Your task to perform on an android device: turn on javascript in the chrome app Image 0: 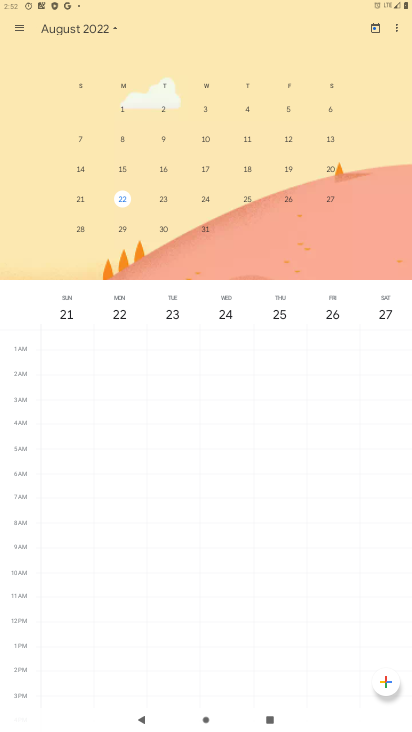
Step 0: press home button
Your task to perform on an android device: turn on javascript in the chrome app Image 1: 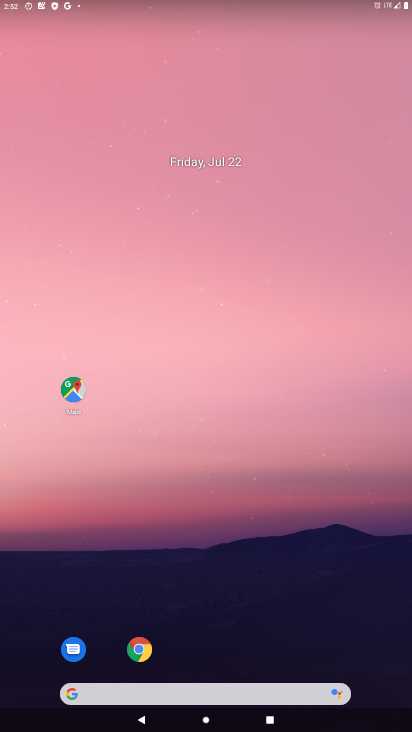
Step 1: drag from (341, 572) to (298, 77)
Your task to perform on an android device: turn on javascript in the chrome app Image 2: 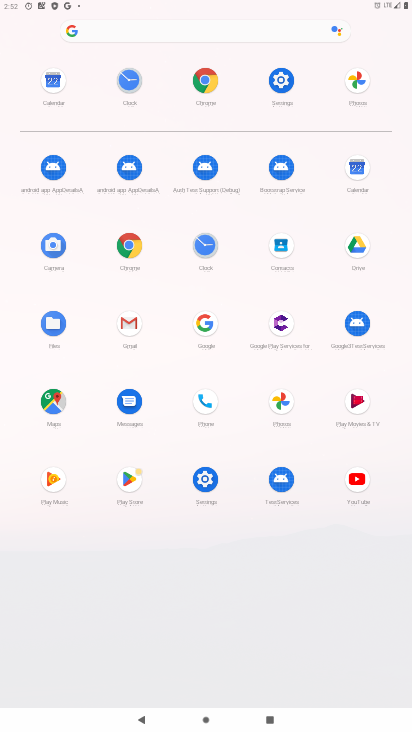
Step 2: click (134, 248)
Your task to perform on an android device: turn on javascript in the chrome app Image 3: 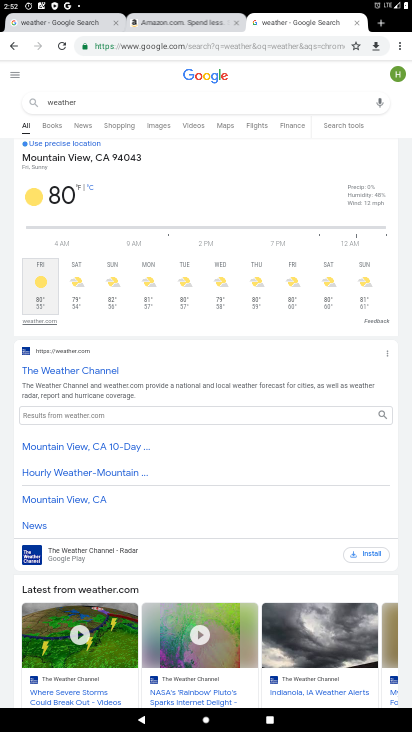
Step 3: drag from (397, 45) to (307, 316)
Your task to perform on an android device: turn on javascript in the chrome app Image 4: 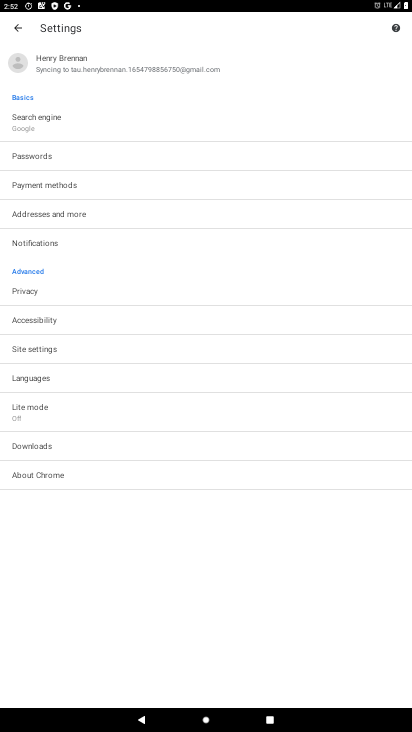
Step 4: click (58, 349)
Your task to perform on an android device: turn on javascript in the chrome app Image 5: 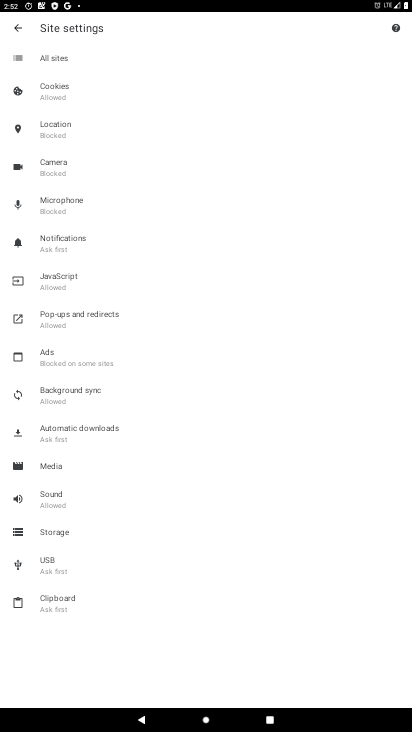
Step 5: click (63, 289)
Your task to perform on an android device: turn on javascript in the chrome app Image 6: 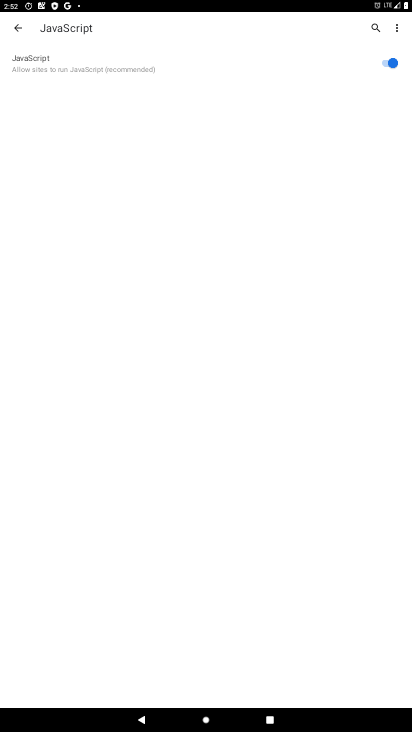
Step 6: task complete